Your task to perform on an android device: snooze an email in the gmail app Image 0: 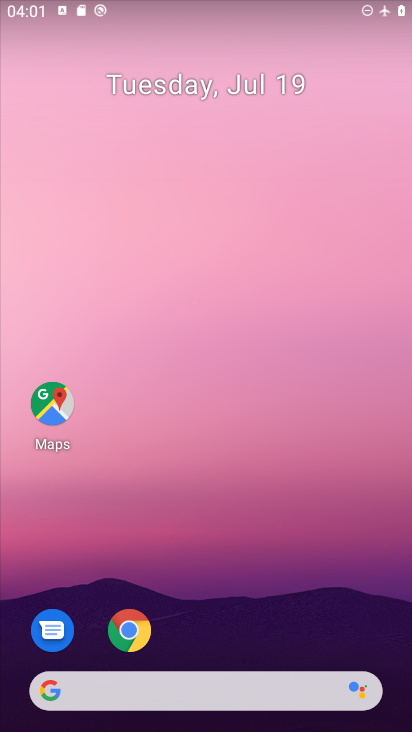
Step 0: drag from (365, 633) to (331, 119)
Your task to perform on an android device: snooze an email in the gmail app Image 1: 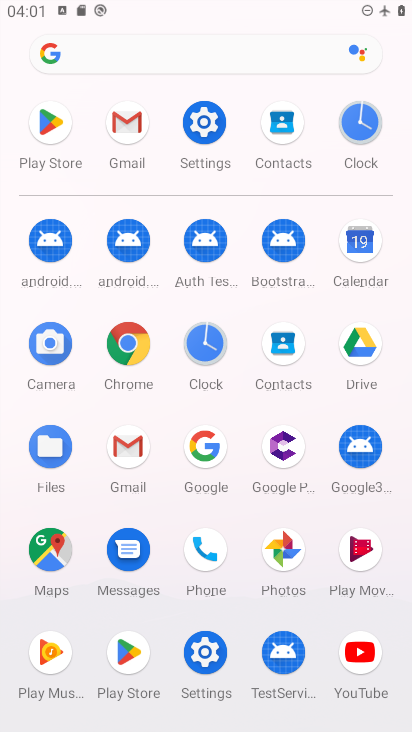
Step 1: click (127, 444)
Your task to perform on an android device: snooze an email in the gmail app Image 2: 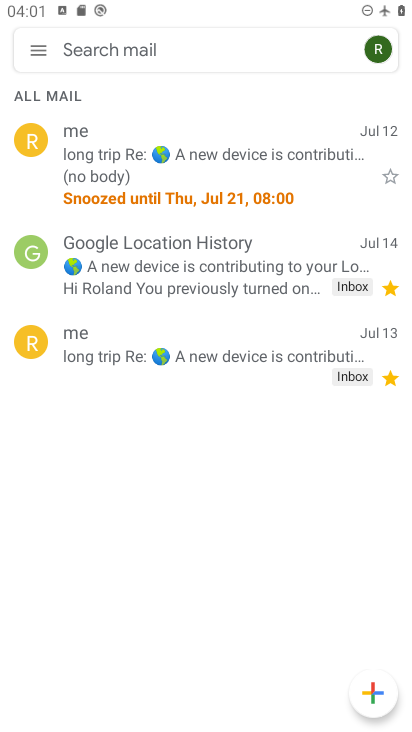
Step 2: click (40, 58)
Your task to perform on an android device: snooze an email in the gmail app Image 3: 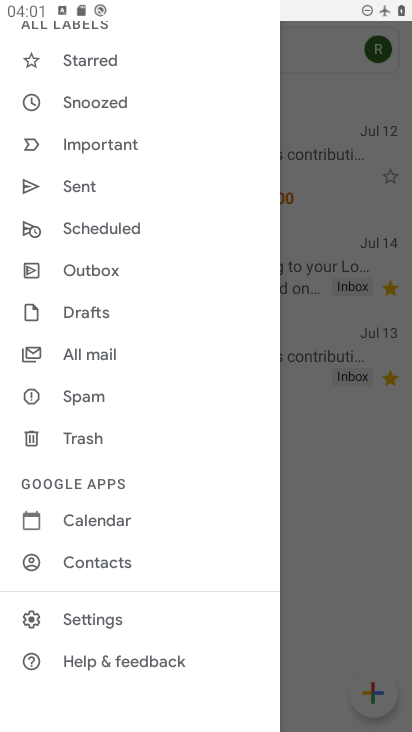
Step 3: click (80, 348)
Your task to perform on an android device: snooze an email in the gmail app Image 4: 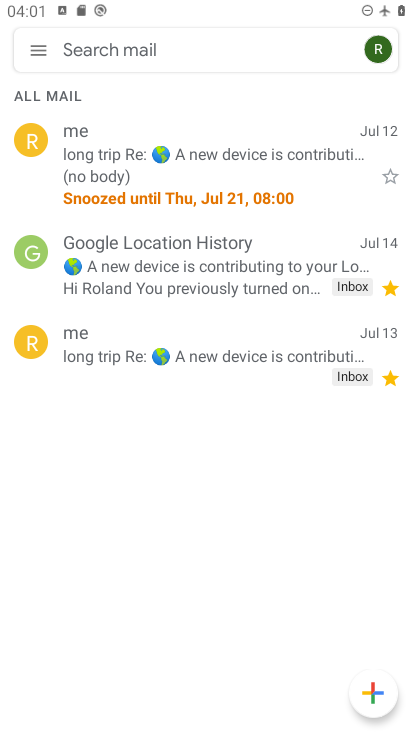
Step 4: click (187, 261)
Your task to perform on an android device: snooze an email in the gmail app Image 5: 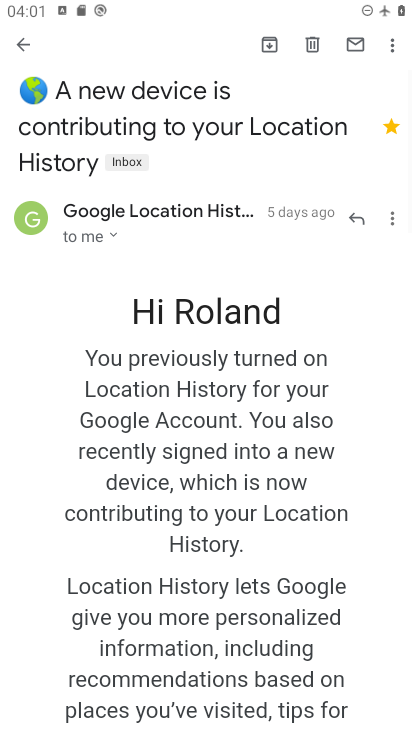
Step 5: click (393, 44)
Your task to perform on an android device: snooze an email in the gmail app Image 6: 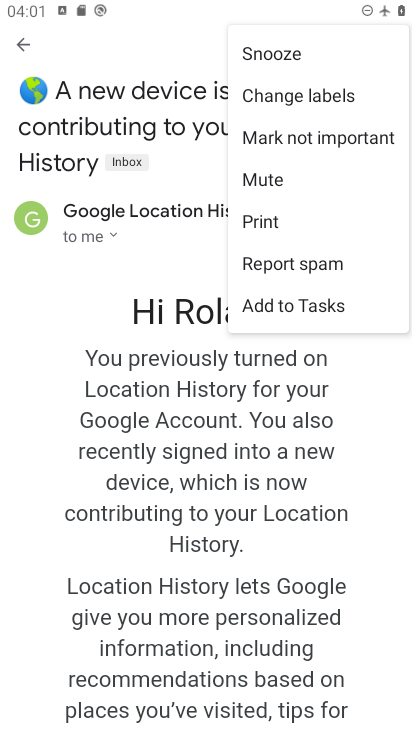
Step 6: click (266, 58)
Your task to perform on an android device: snooze an email in the gmail app Image 7: 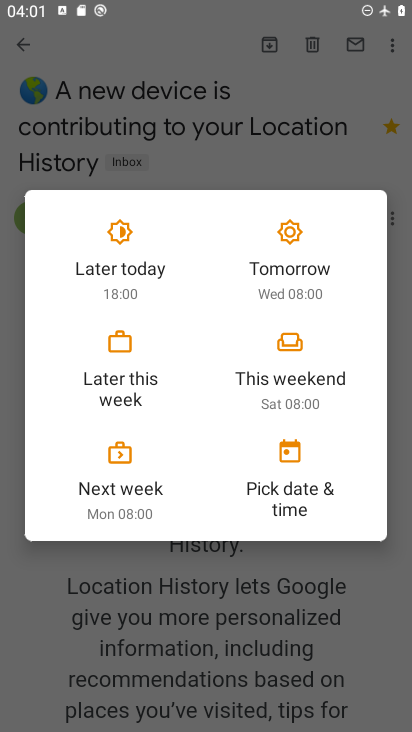
Step 7: click (124, 266)
Your task to perform on an android device: snooze an email in the gmail app Image 8: 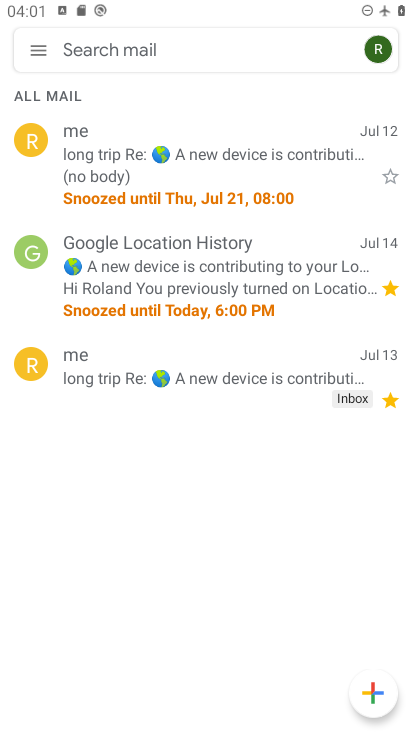
Step 8: task complete